Your task to perform on an android device: What's the weather today? Image 0: 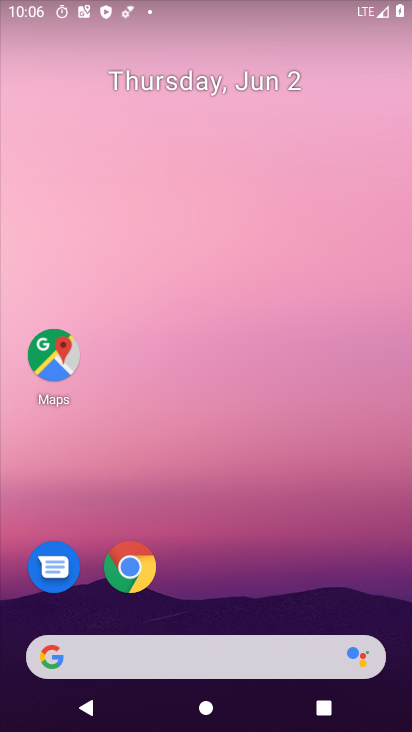
Step 0: drag from (294, 558) to (300, 109)
Your task to perform on an android device: What's the weather today? Image 1: 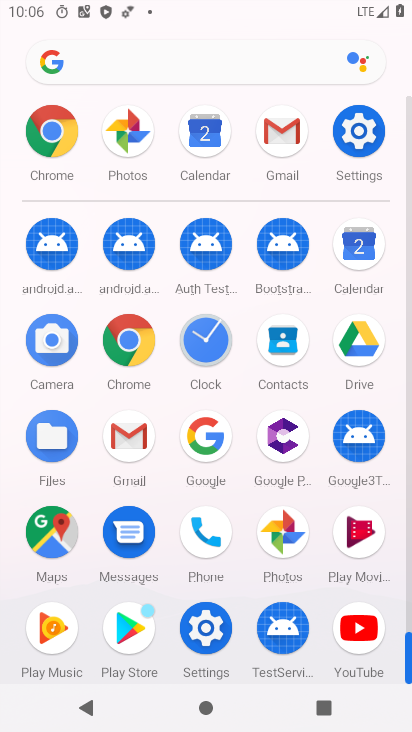
Step 1: click (130, 347)
Your task to perform on an android device: What's the weather today? Image 2: 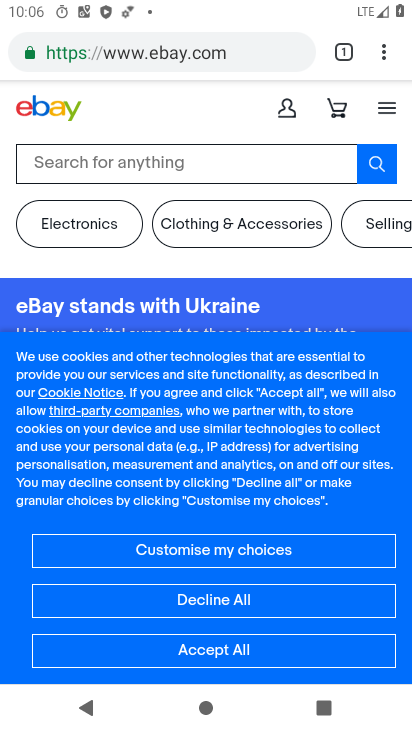
Step 2: click (192, 63)
Your task to perform on an android device: What's the weather today? Image 3: 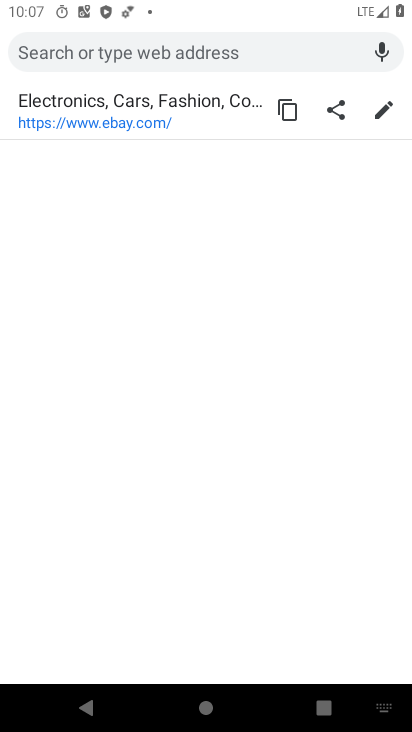
Step 3: type "what's the weather today"
Your task to perform on an android device: What's the weather today? Image 4: 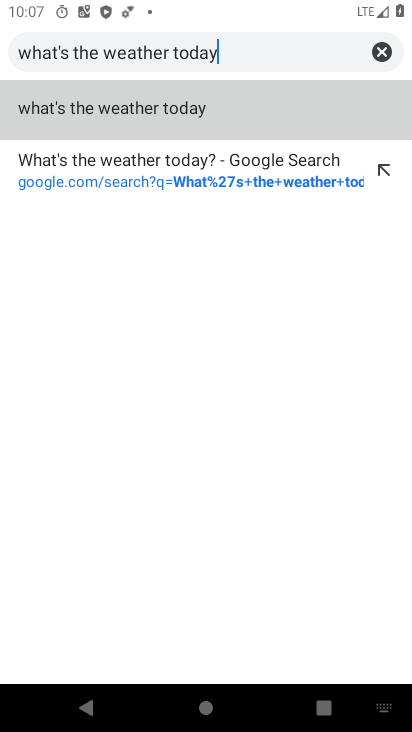
Step 4: click (111, 185)
Your task to perform on an android device: What's the weather today? Image 5: 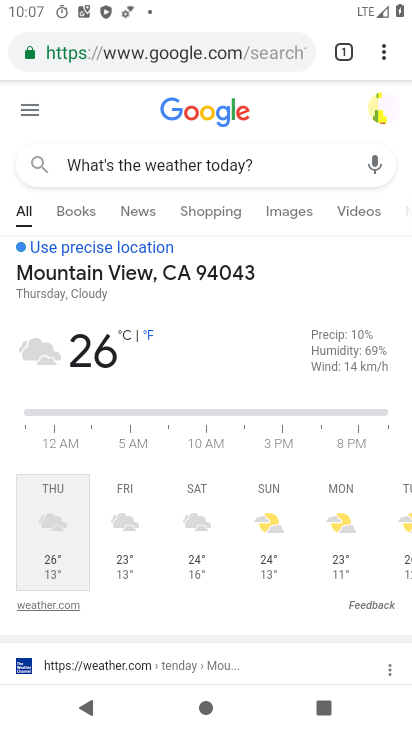
Step 5: task complete